Your task to perform on an android device: Add "usb-a to usb-b" to the cart on target, then select checkout. Image 0: 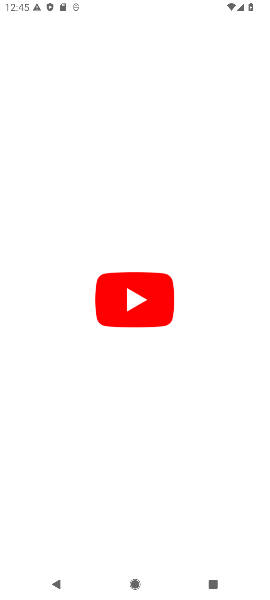
Step 0: press home button
Your task to perform on an android device: Add "usb-a to usb-b" to the cart on target, then select checkout. Image 1: 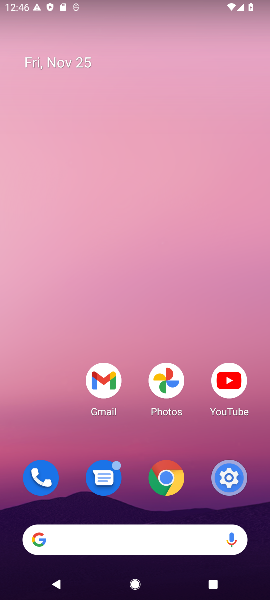
Step 1: click (88, 545)
Your task to perform on an android device: Add "usb-a to usb-b" to the cart on target, then select checkout. Image 2: 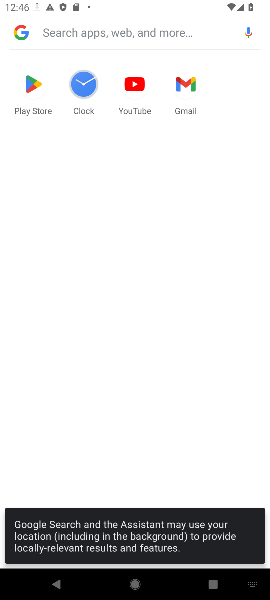
Step 2: type "target"
Your task to perform on an android device: Add "usb-a to usb-b" to the cart on target, then select checkout. Image 3: 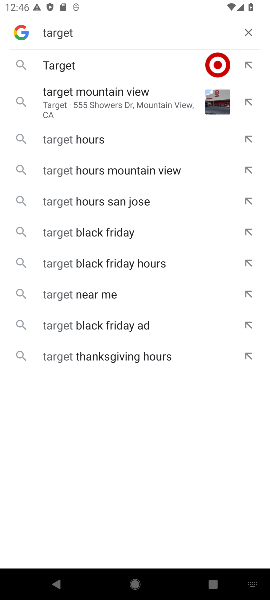
Step 3: click (66, 64)
Your task to perform on an android device: Add "usb-a to usb-b" to the cart on target, then select checkout. Image 4: 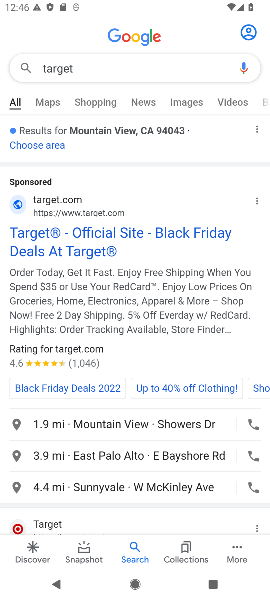
Step 4: click (121, 239)
Your task to perform on an android device: Add "usb-a to usb-b" to the cart on target, then select checkout. Image 5: 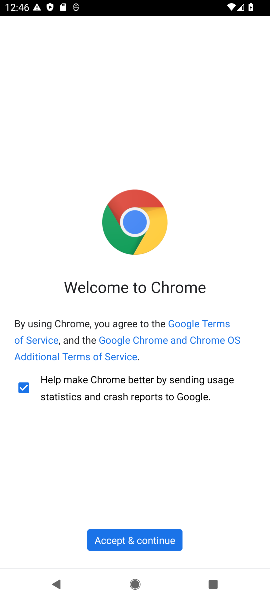
Step 5: click (145, 541)
Your task to perform on an android device: Add "usb-a to usb-b" to the cart on target, then select checkout. Image 6: 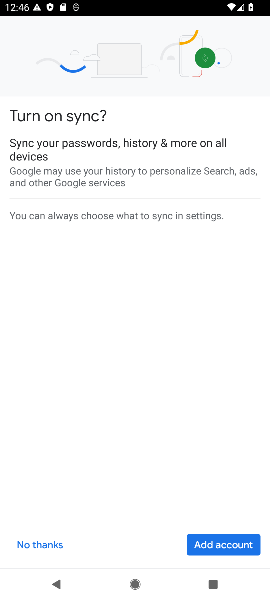
Step 6: click (238, 546)
Your task to perform on an android device: Add "usb-a to usb-b" to the cart on target, then select checkout. Image 7: 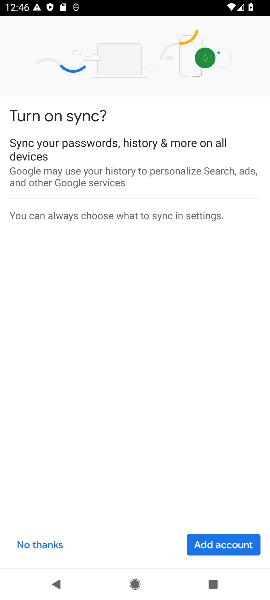
Step 7: click (238, 546)
Your task to perform on an android device: Add "usb-a to usb-b" to the cart on target, then select checkout. Image 8: 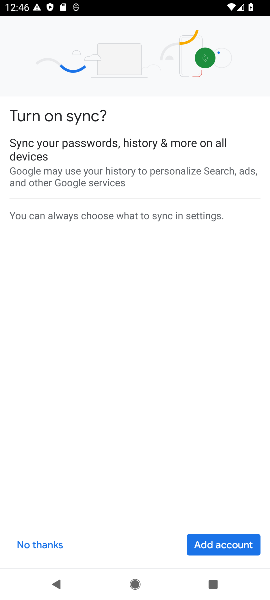
Step 8: click (225, 545)
Your task to perform on an android device: Add "usb-a to usb-b" to the cart on target, then select checkout. Image 9: 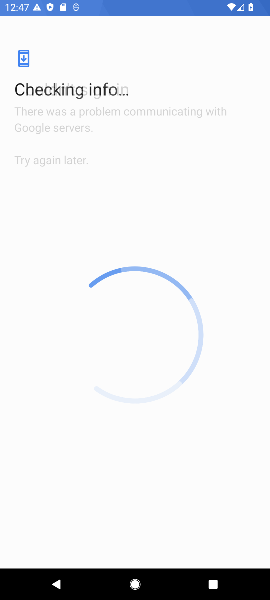
Step 9: task complete